Your task to perform on an android device: open app "WhatsApp Messenger" Image 0: 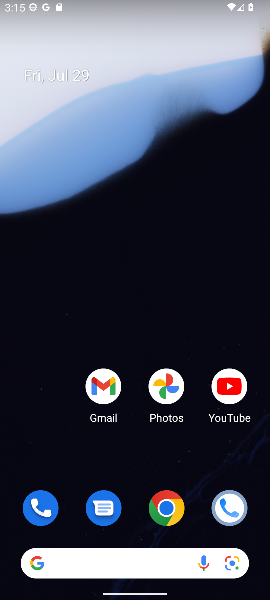
Step 0: drag from (192, 476) to (99, 10)
Your task to perform on an android device: open app "WhatsApp Messenger" Image 1: 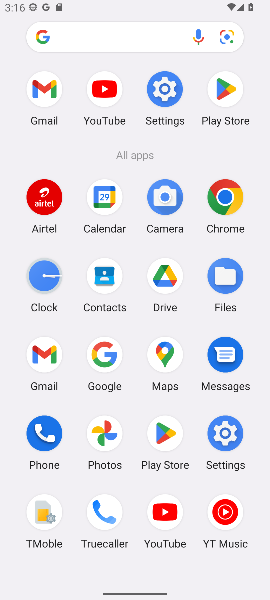
Step 1: click (174, 437)
Your task to perform on an android device: open app "WhatsApp Messenger" Image 2: 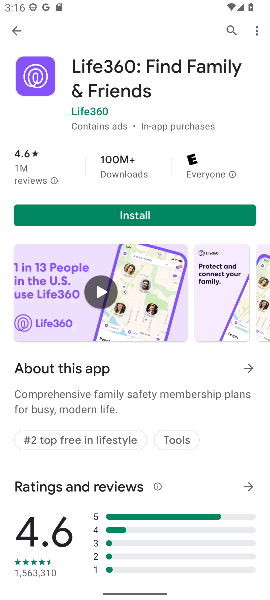
Step 2: press back button
Your task to perform on an android device: open app "WhatsApp Messenger" Image 3: 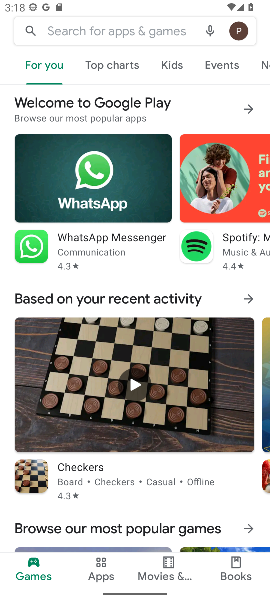
Step 3: click (91, 18)
Your task to perform on an android device: open app "WhatsApp Messenger" Image 4: 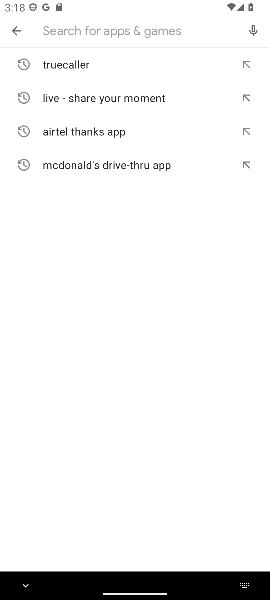
Step 4: type "WhatsApp Messenger"
Your task to perform on an android device: open app "WhatsApp Messenger" Image 5: 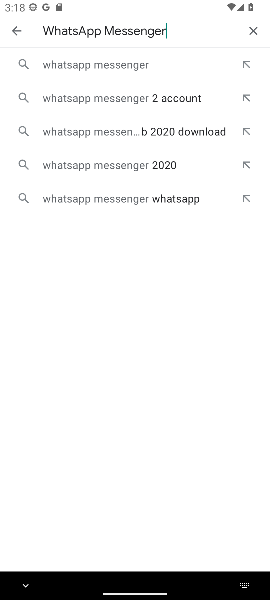
Step 5: click (122, 69)
Your task to perform on an android device: open app "WhatsApp Messenger" Image 6: 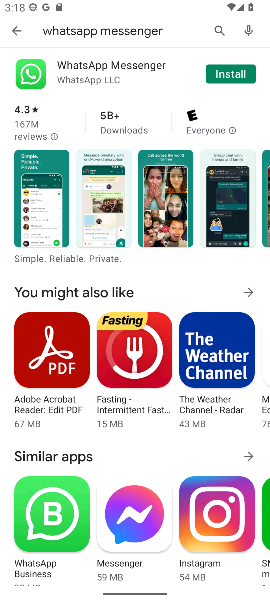
Step 6: task complete